Your task to perform on an android device: Open Android settings Image 0: 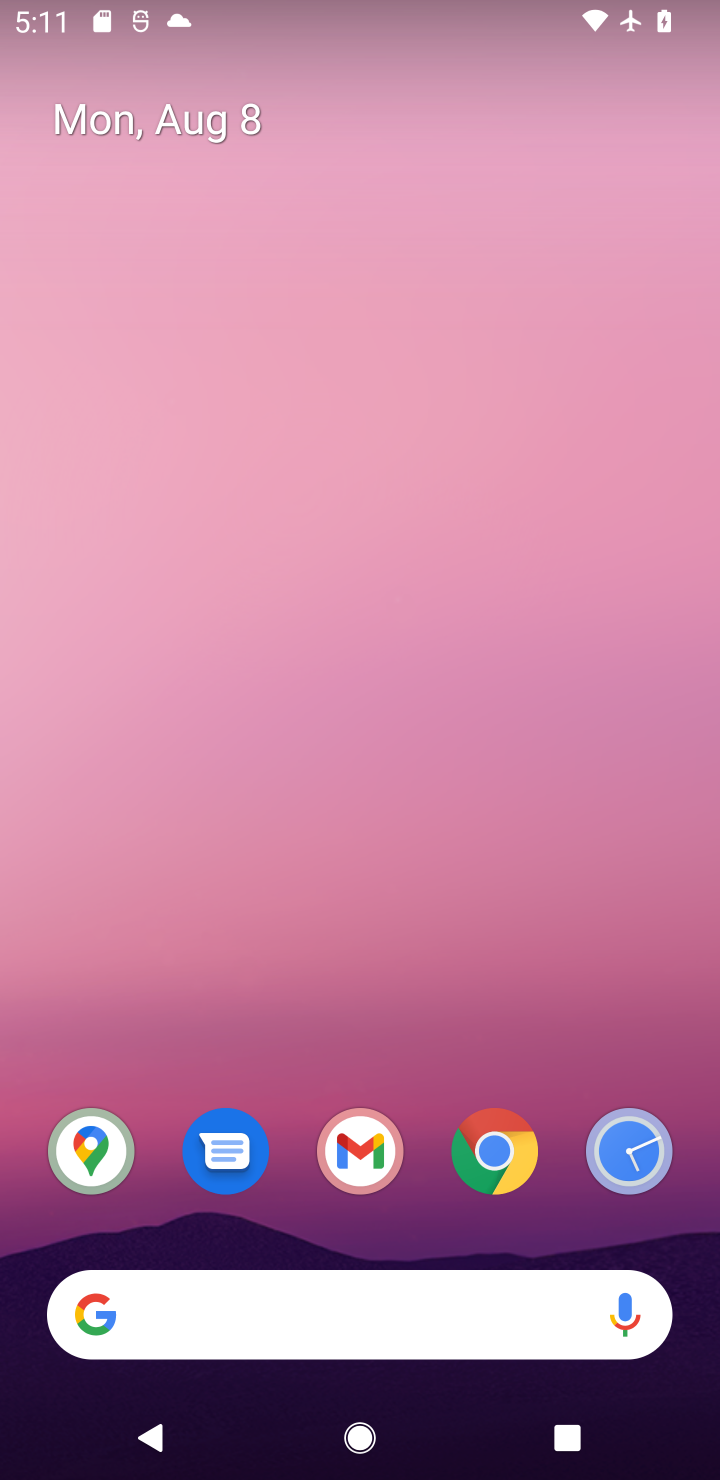
Step 0: drag from (351, 547) to (343, 307)
Your task to perform on an android device: Open Android settings Image 1: 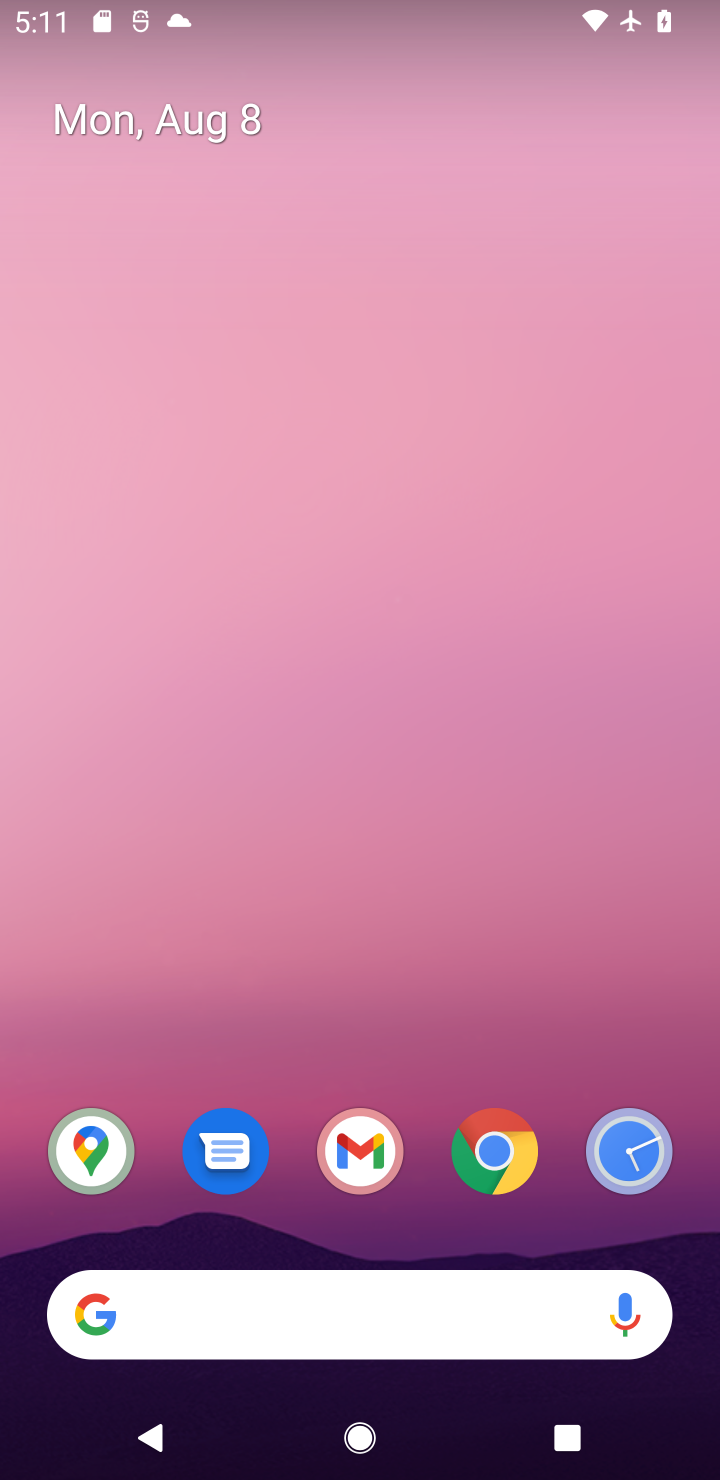
Step 1: drag from (398, 1065) to (377, 147)
Your task to perform on an android device: Open Android settings Image 2: 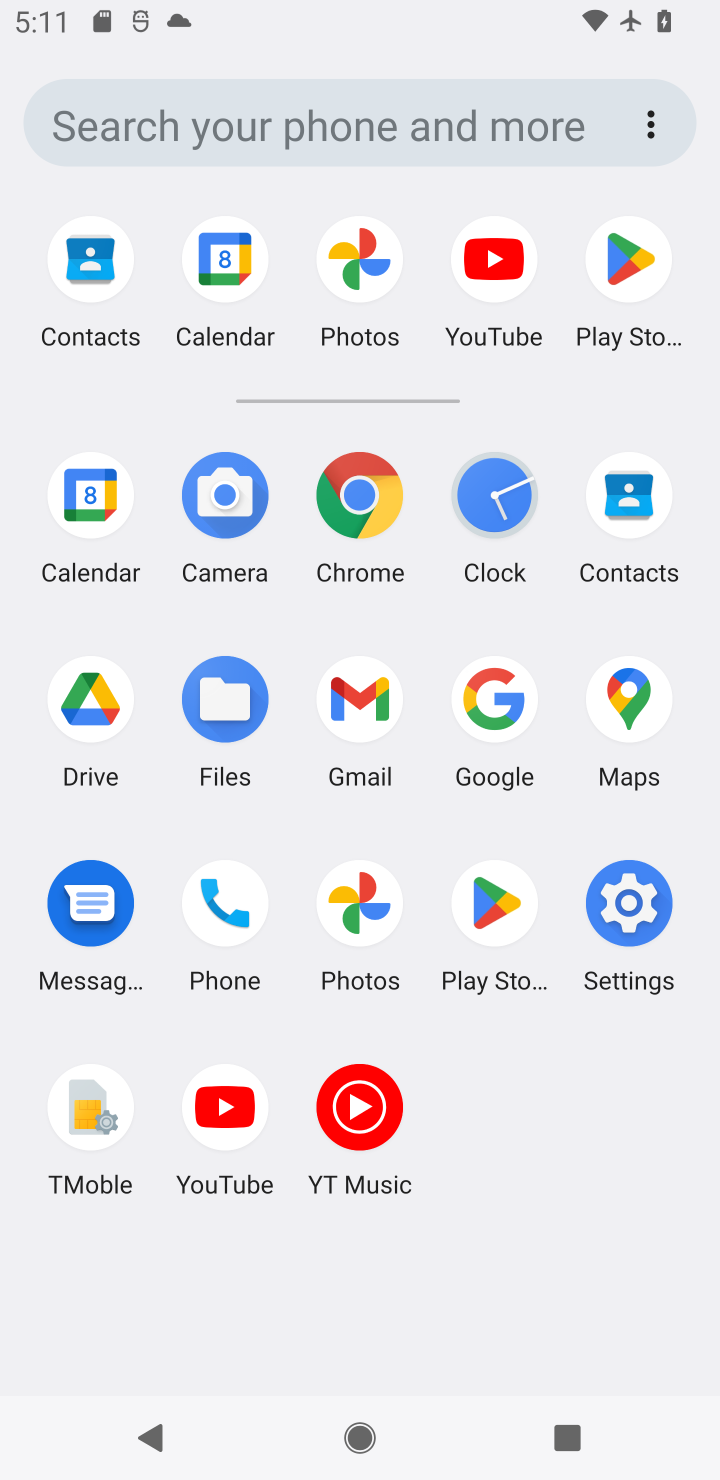
Step 2: click (646, 897)
Your task to perform on an android device: Open Android settings Image 3: 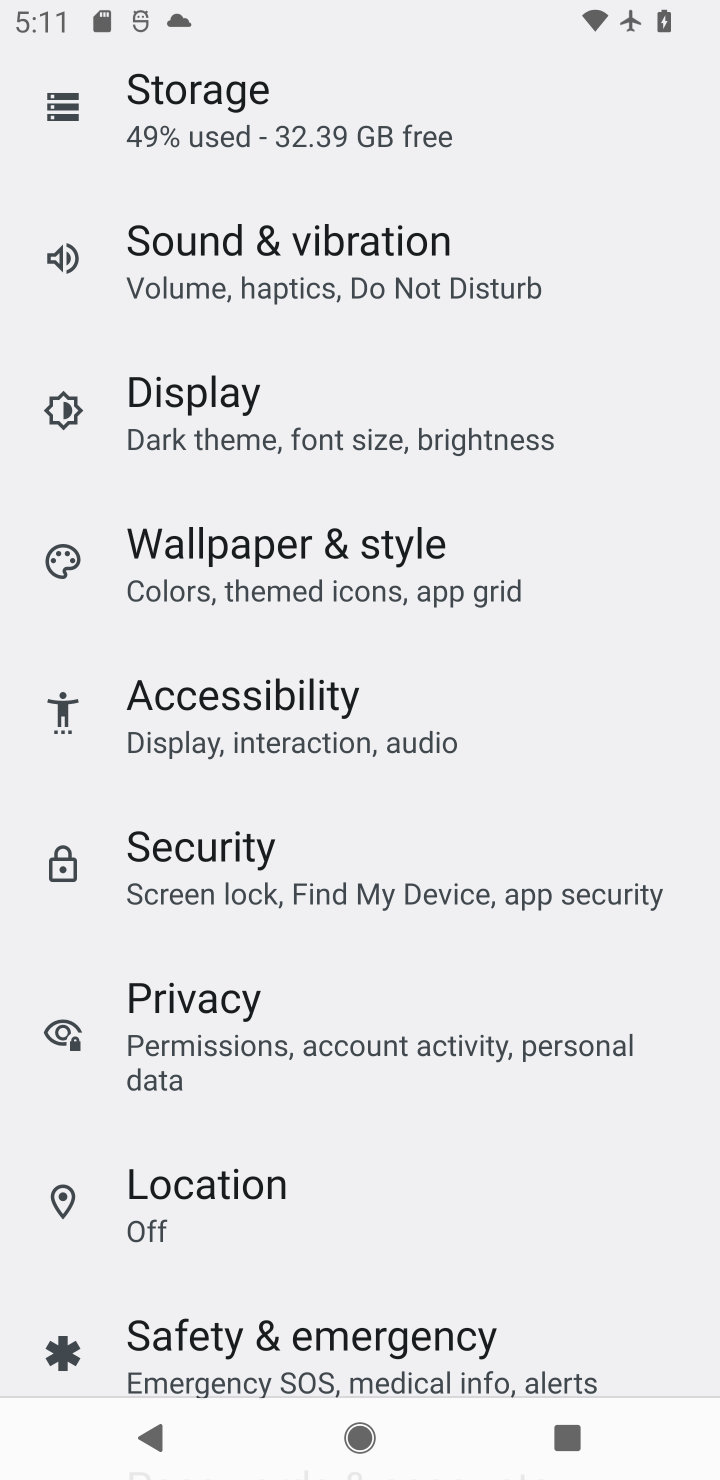
Step 3: task complete